Your task to perform on an android device: turn pop-ups off in chrome Image 0: 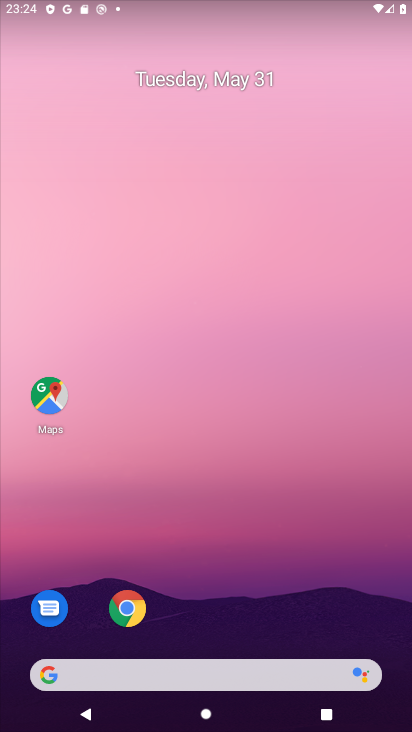
Step 0: drag from (291, 596) to (213, 9)
Your task to perform on an android device: turn pop-ups off in chrome Image 1: 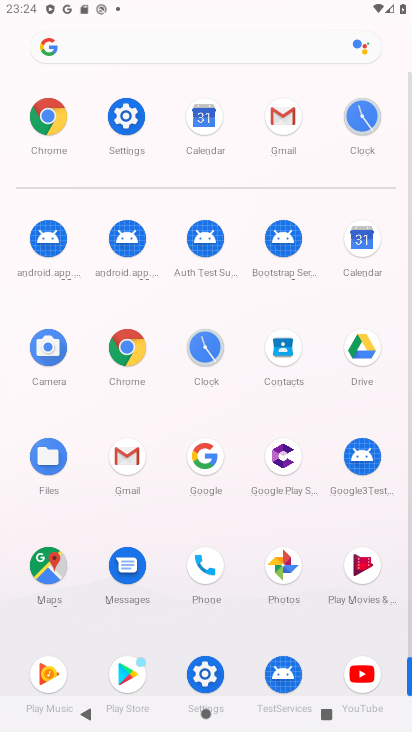
Step 1: click (52, 144)
Your task to perform on an android device: turn pop-ups off in chrome Image 2: 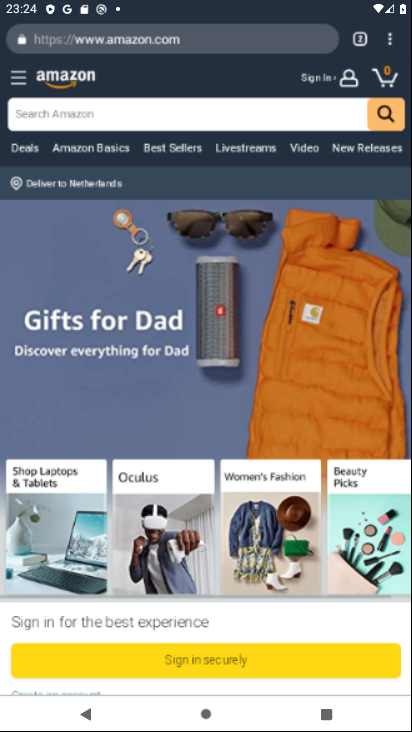
Step 2: drag from (383, 30) to (272, 466)
Your task to perform on an android device: turn pop-ups off in chrome Image 3: 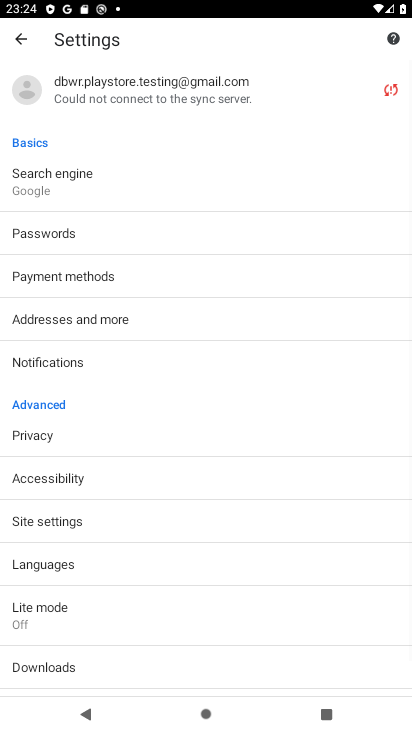
Step 3: click (31, 518)
Your task to perform on an android device: turn pop-ups off in chrome Image 4: 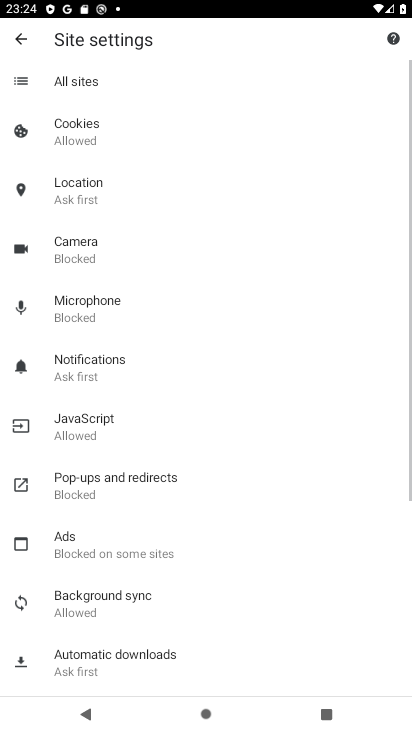
Step 4: click (138, 475)
Your task to perform on an android device: turn pop-ups off in chrome Image 5: 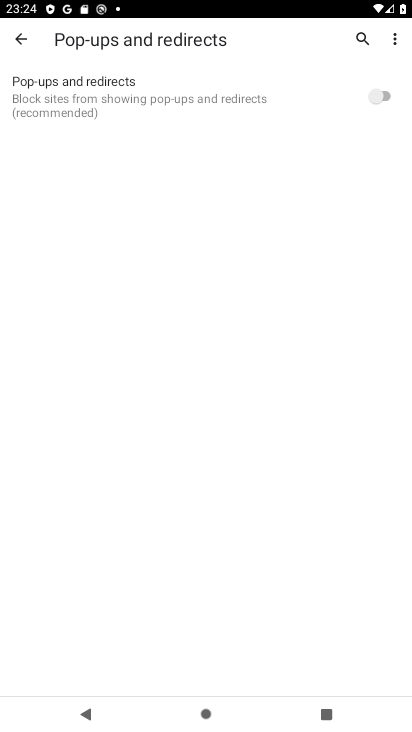
Step 5: task complete